Your task to perform on an android device: When is my next meeting? Image 0: 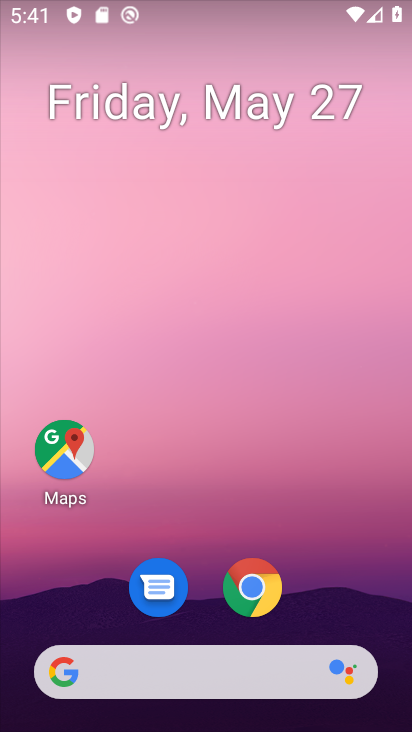
Step 0: drag from (283, 544) to (265, 135)
Your task to perform on an android device: When is my next meeting? Image 1: 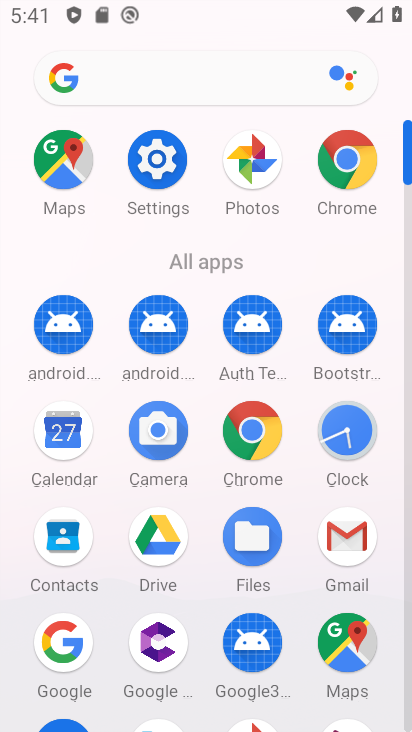
Step 1: click (76, 424)
Your task to perform on an android device: When is my next meeting? Image 2: 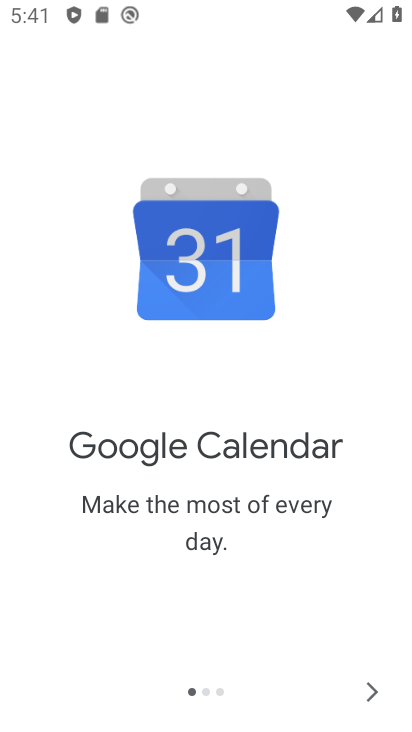
Step 2: click (374, 679)
Your task to perform on an android device: When is my next meeting? Image 3: 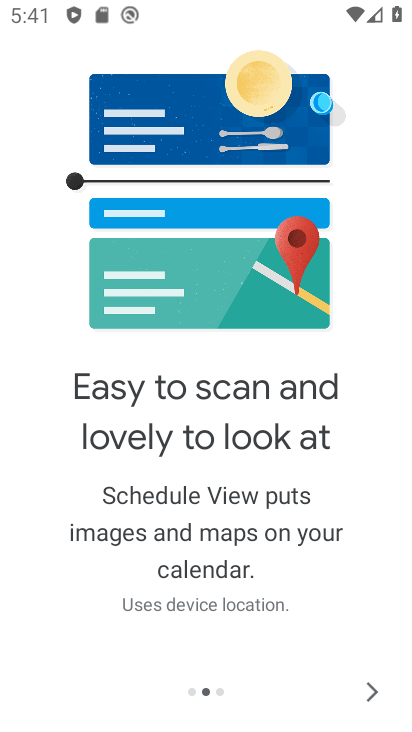
Step 3: click (374, 679)
Your task to perform on an android device: When is my next meeting? Image 4: 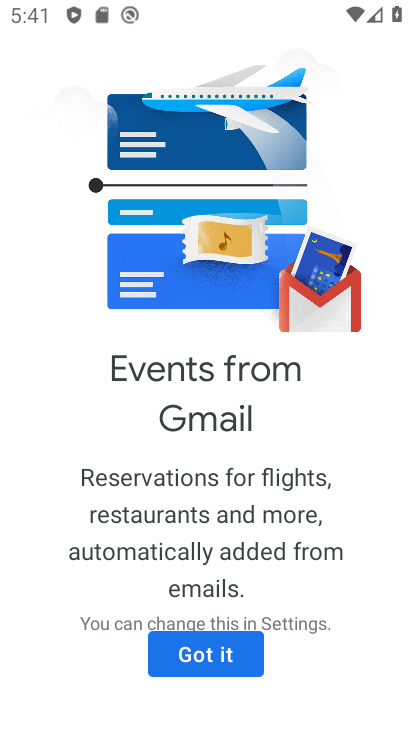
Step 4: click (161, 642)
Your task to perform on an android device: When is my next meeting? Image 5: 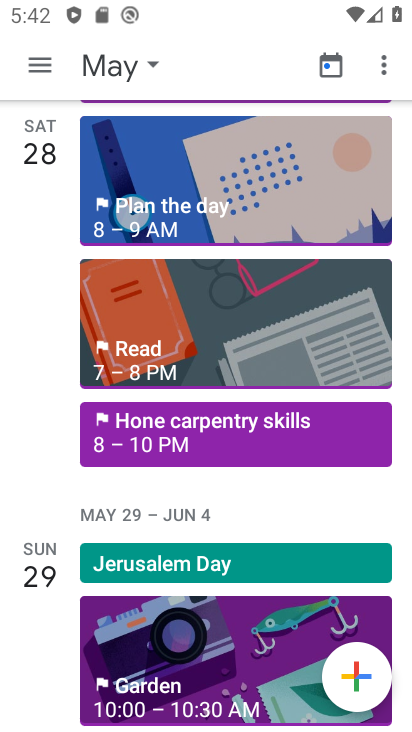
Step 5: task complete